Your task to perform on an android device: Go to Android settings Image 0: 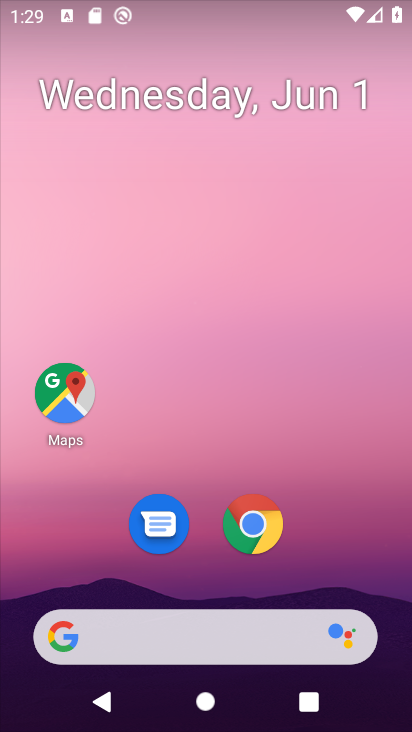
Step 0: drag from (322, 541) to (337, 39)
Your task to perform on an android device: Go to Android settings Image 1: 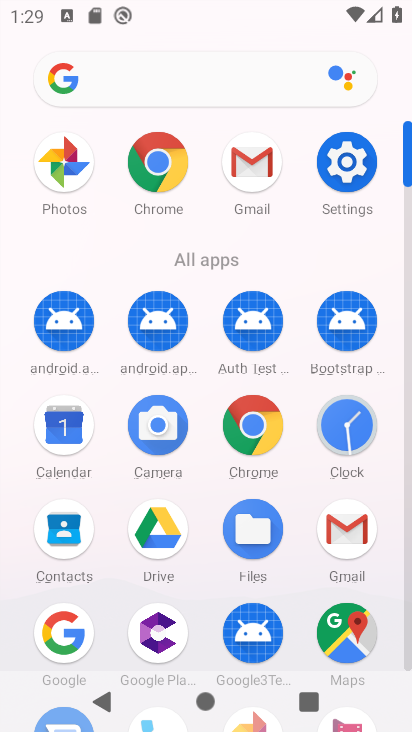
Step 1: click (343, 164)
Your task to perform on an android device: Go to Android settings Image 2: 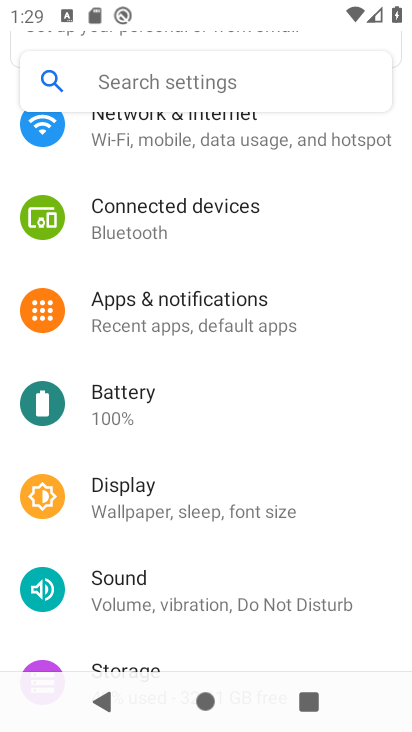
Step 2: drag from (268, 567) to (286, 51)
Your task to perform on an android device: Go to Android settings Image 3: 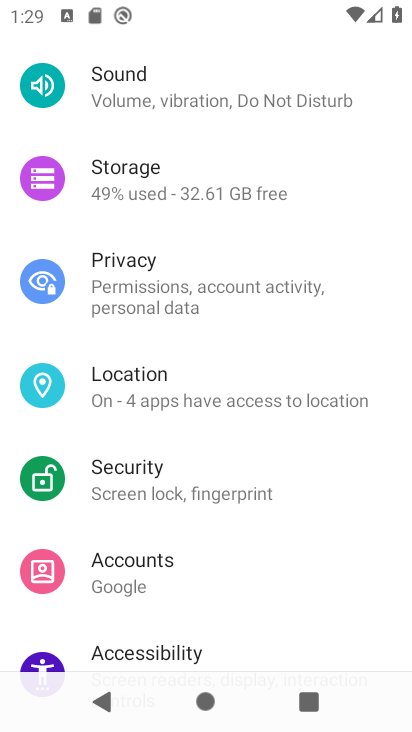
Step 3: drag from (246, 440) to (265, 83)
Your task to perform on an android device: Go to Android settings Image 4: 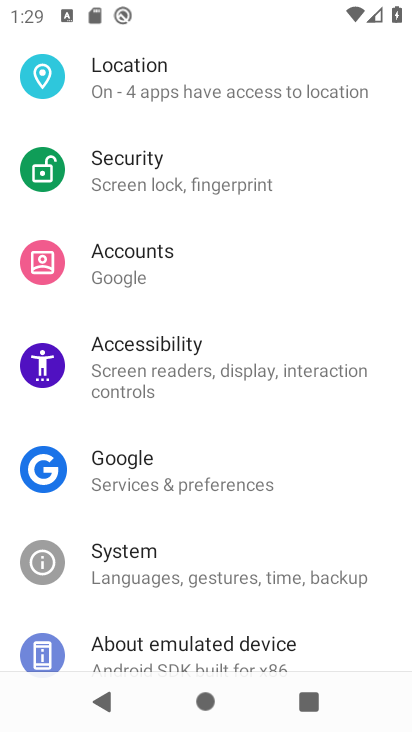
Step 4: click (250, 643)
Your task to perform on an android device: Go to Android settings Image 5: 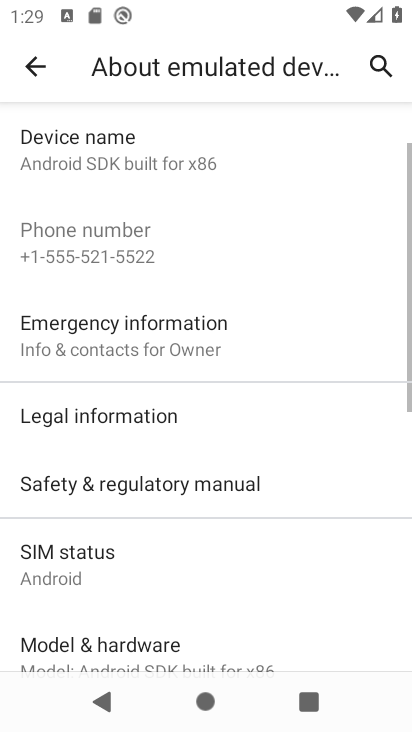
Step 5: task complete